Your task to perform on an android device: Open wifi settings Image 0: 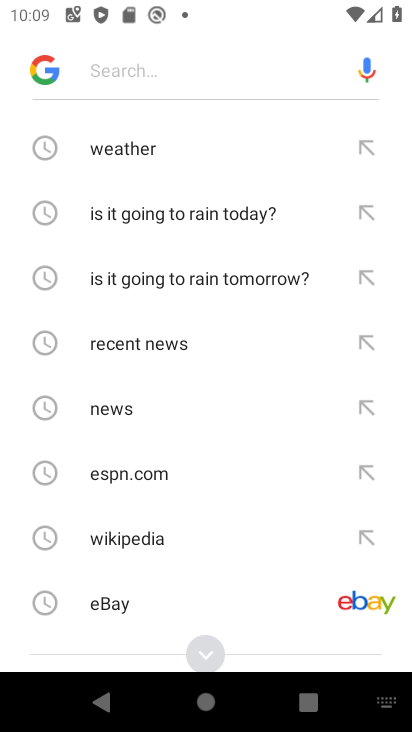
Step 0: press home button
Your task to perform on an android device: Open wifi settings Image 1: 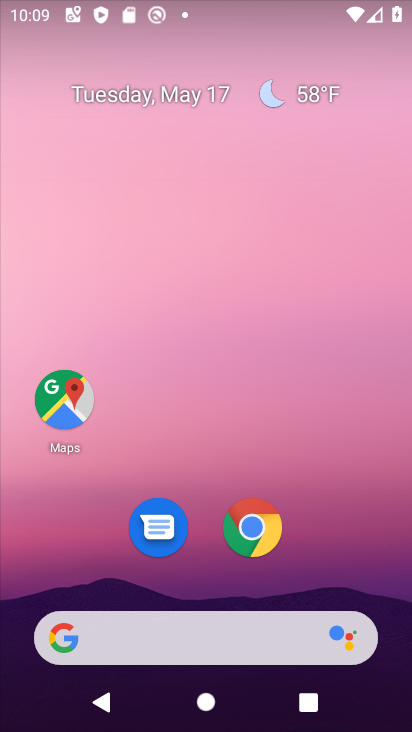
Step 1: drag from (315, 587) to (308, 3)
Your task to perform on an android device: Open wifi settings Image 2: 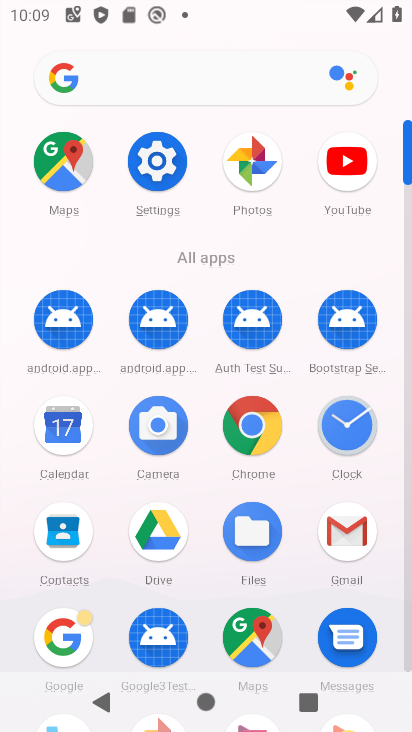
Step 2: click (154, 160)
Your task to perform on an android device: Open wifi settings Image 3: 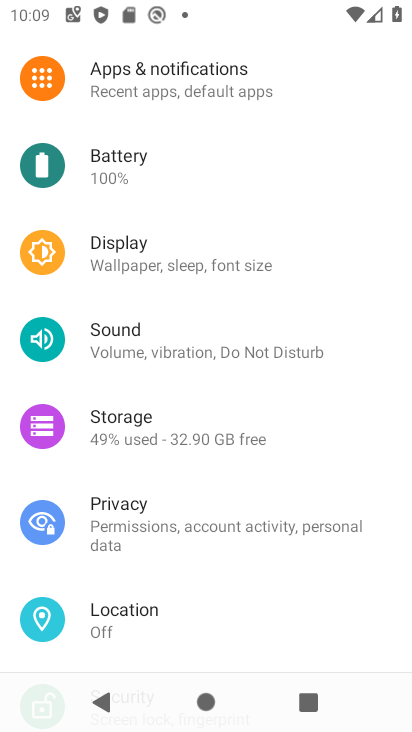
Step 3: drag from (232, 161) to (278, 599)
Your task to perform on an android device: Open wifi settings Image 4: 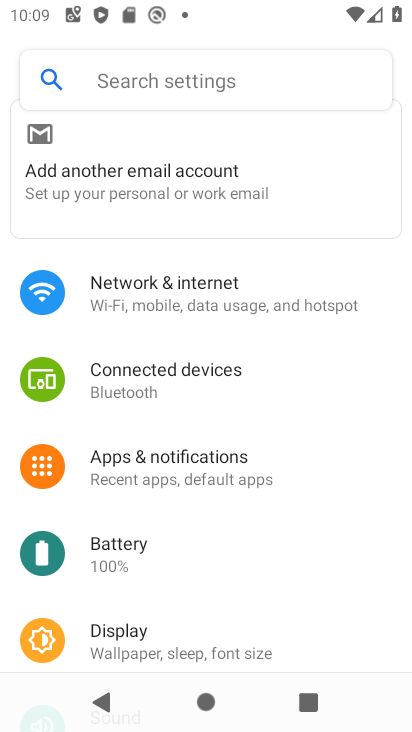
Step 4: click (146, 248)
Your task to perform on an android device: Open wifi settings Image 5: 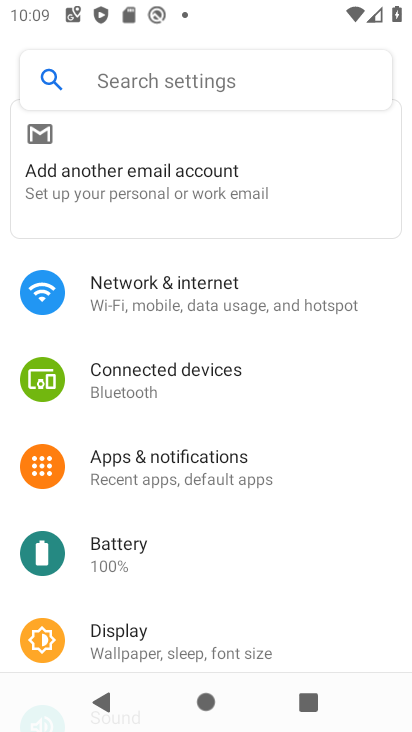
Step 5: click (147, 294)
Your task to perform on an android device: Open wifi settings Image 6: 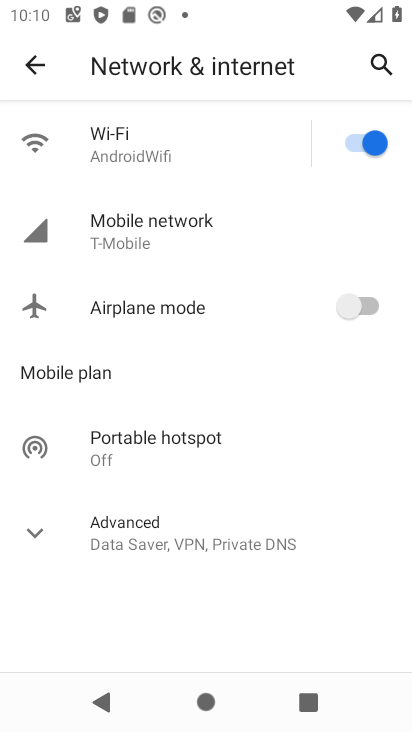
Step 6: click (93, 156)
Your task to perform on an android device: Open wifi settings Image 7: 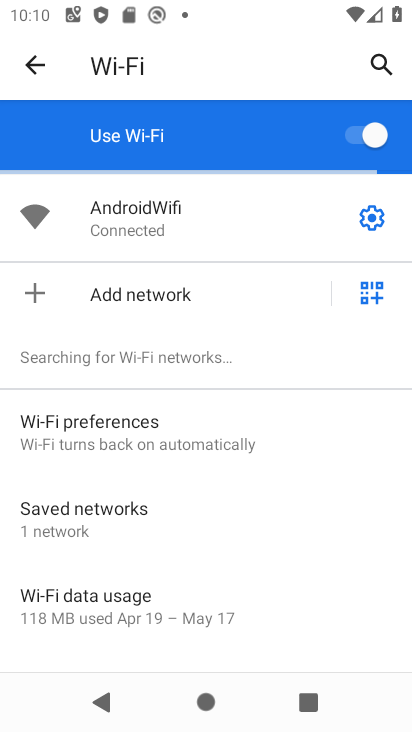
Step 7: task complete